Your task to perform on an android device: Search for sushi restaurants on Maps Image 0: 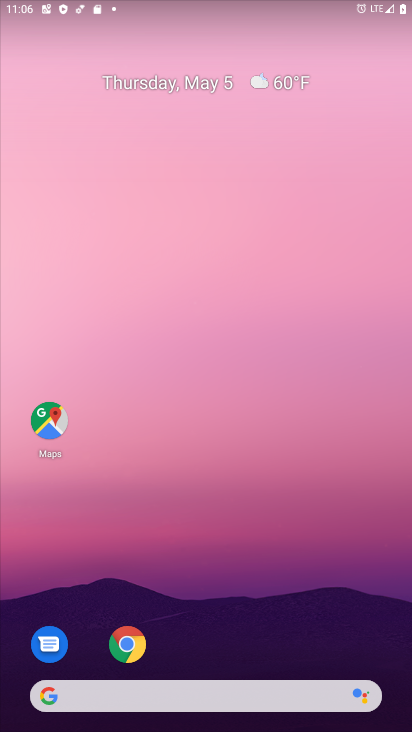
Step 0: click (48, 413)
Your task to perform on an android device: Search for sushi restaurants on Maps Image 1: 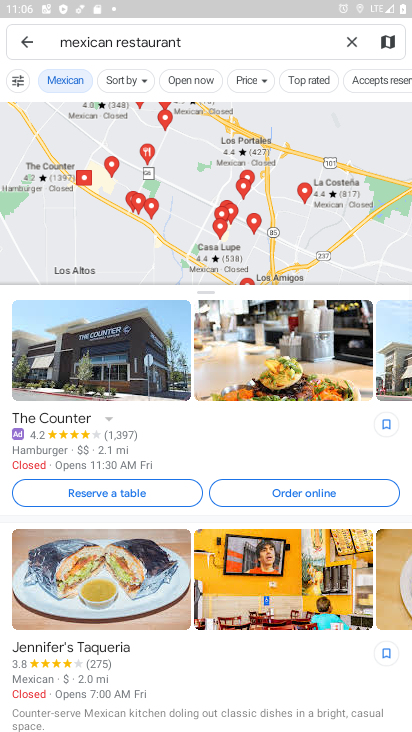
Step 1: click (346, 37)
Your task to perform on an android device: Search for sushi restaurants on Maps Image 2: 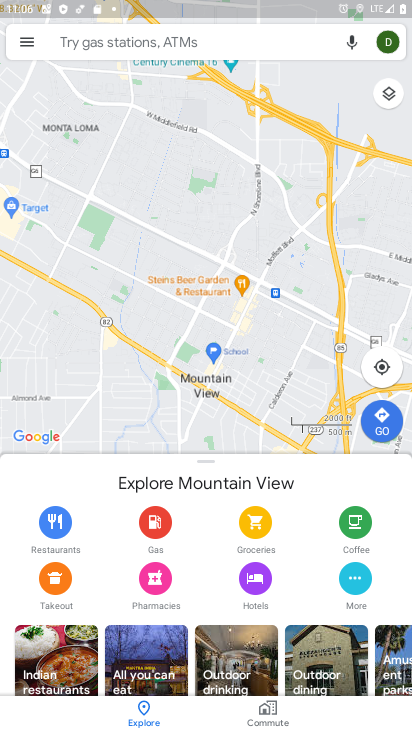
Step 2: click (197, 43)
Your task to perform on an android device: Search for sushi restaurants on Maps Image 3: 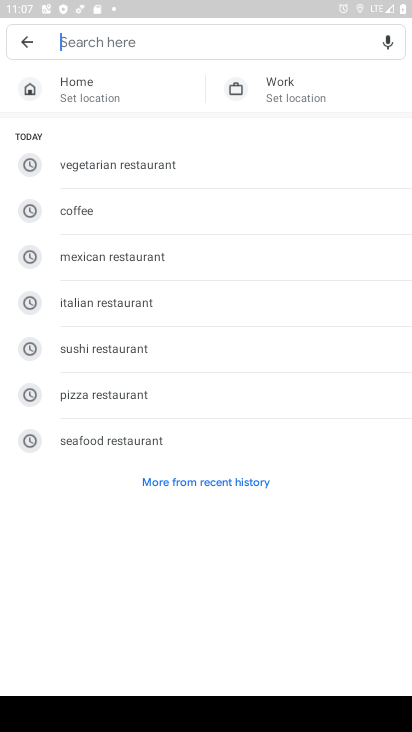
Step 3: click (106, 352)
Your task to perform on an android device: Search for sushi restaurants on Maps Image 4: 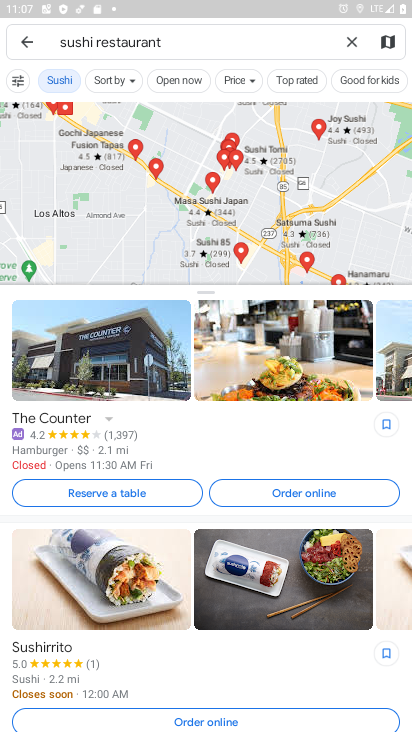
Step 4: task complete